Your task to perform on an android device: Set the phone to "Do not disturb". Image 0: 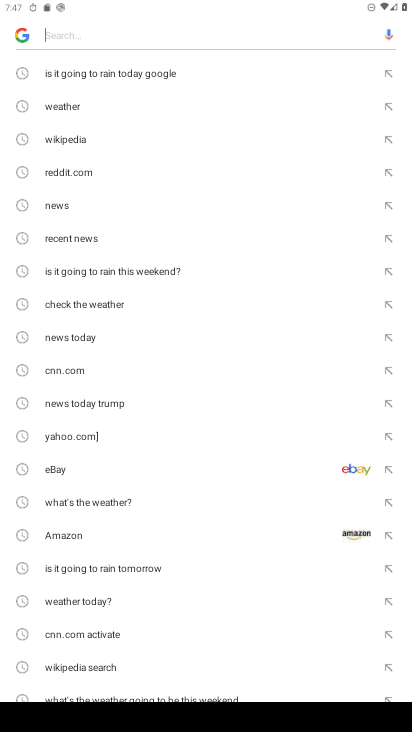
Step 0: press home button
Your task to perform on an android device: Set the phone to "Do not disturb". Image 1: 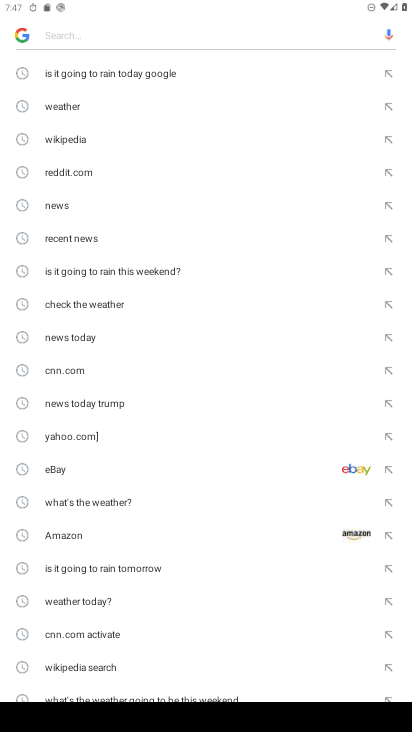
Step 1: press home button
Your task to perform on an android device: Set the phone to "Do not disturb". Image 2: 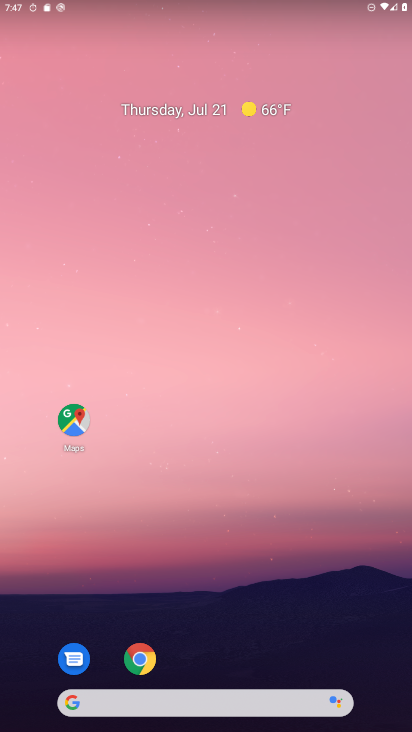
Step 2: drag from (168, 649) to (331, 9)
Your task to perform on an android device: Set the phone to "Do not disturb". Image 3: 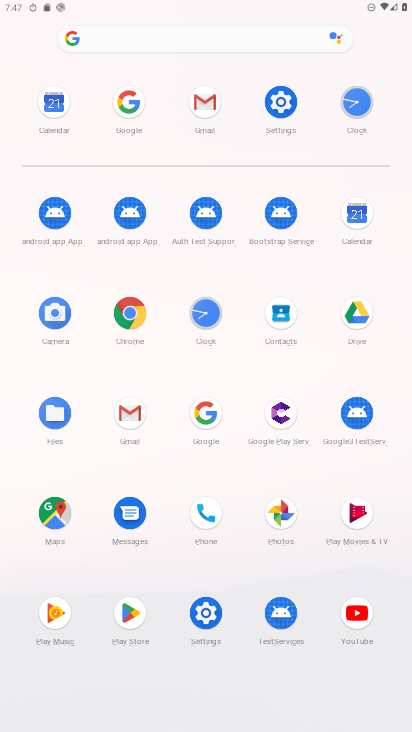
Step 3: click (279, 92)
Your task to perform on an android device: Set the phone to "Do not disturb". Image 4: 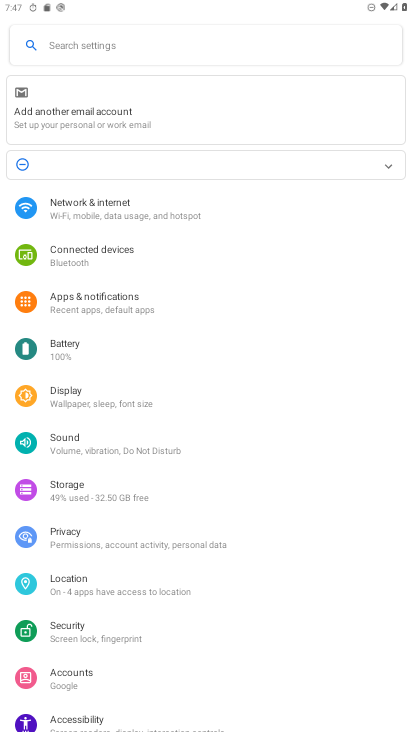
Step 4: drag from (130, 624) to (214, 325)
Your task to perform on an android device: Set the phone to "Do not disturb". Image 5: 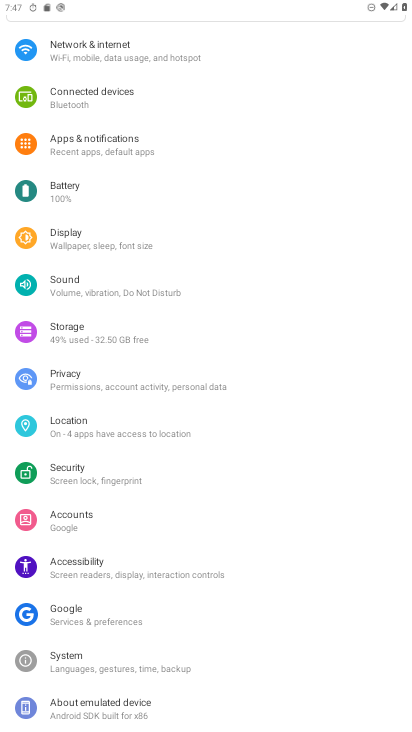
Step 5: click (104, 132)
Your task to perform on an android device: Set the phone to "Do not disturb". Image 6: 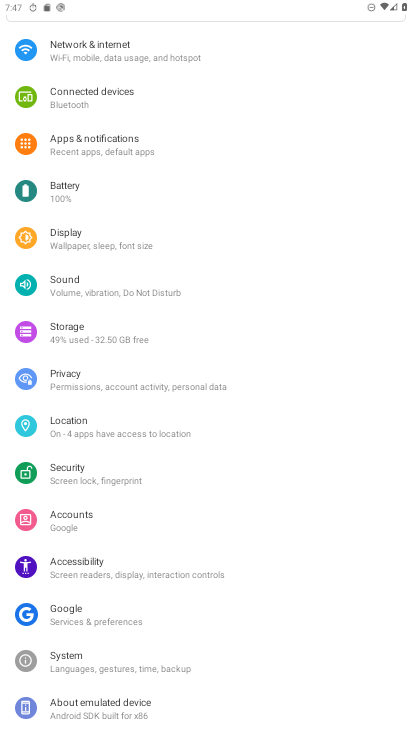
Step 6: click (104, 132)
Your task to perform on an android device: Set the phone to "Do not disturb". Image 7: 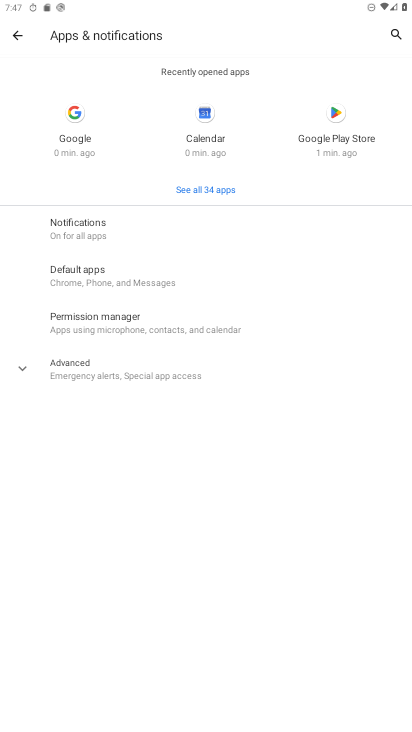
Step 7: click (147, 234)
Your task to perform on an android device: Set the phone to "Do not disturb". Image 8: 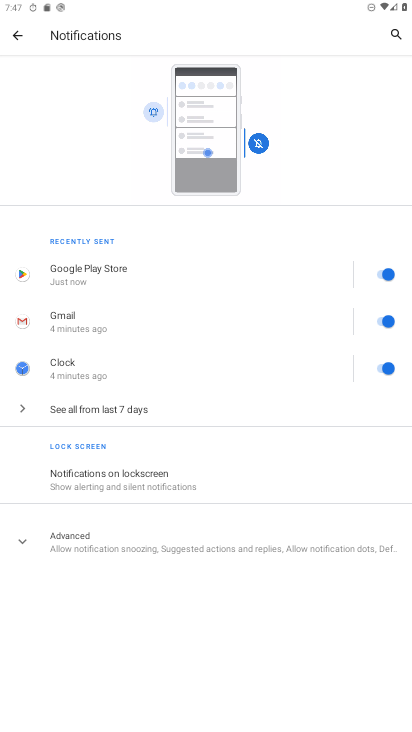
Step 8: click (99, 541)
Your task to perform on an android device: Set the phone to "Do not disturb". Image 9: 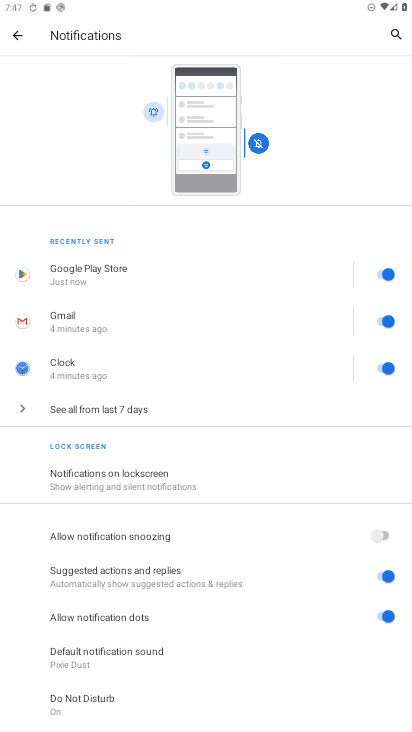
Step 9: drag from (177, 545) to (255, 22)
Your task to perform on an android device: Set the phone to "Do not disturb". Image 10: 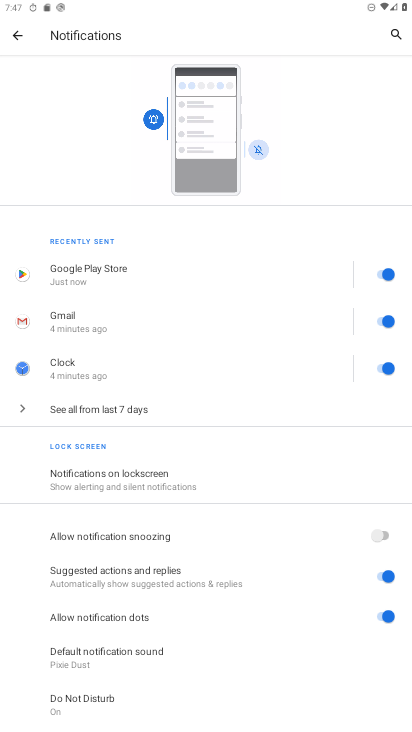
Step 10: click (93, 711)
Your task to perform on an android device: Set the phone to "Do not disturb". Image 11: 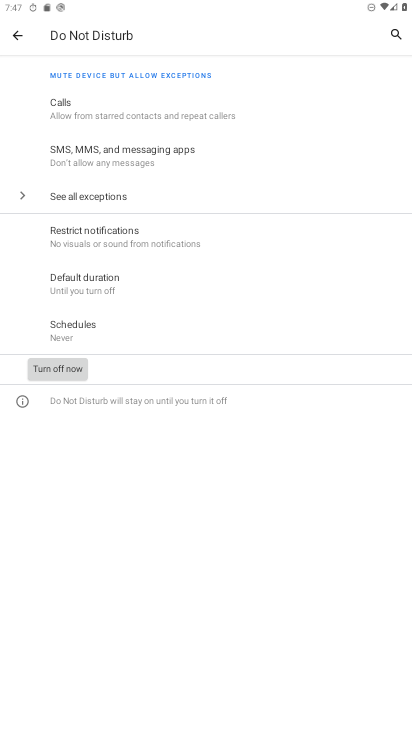
Step 11: task complete